Your task to perform on an android device: turn pop-ups off in chrome Image 0: 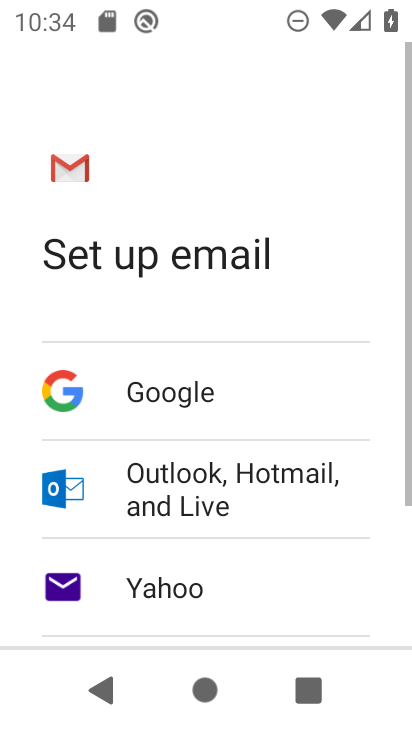
Step 0: press home button
Your task to perform on an android device: turn pop-ups off in chrome Image 1: 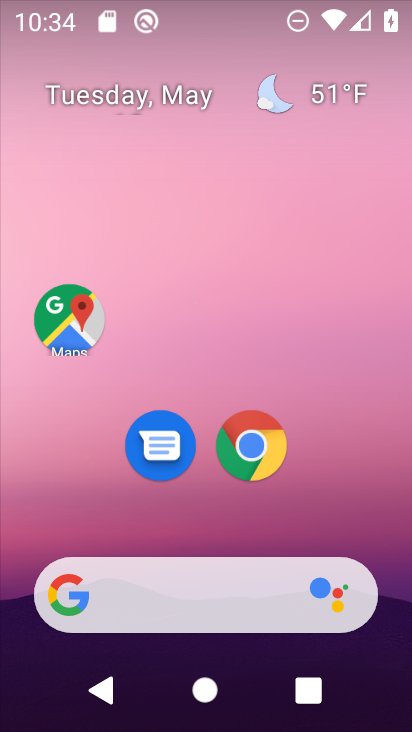
Step 1: drag from (208, 581) to (187, 2)
Your task to perform on an android device: turn pop-ups off in chrome Image 2: 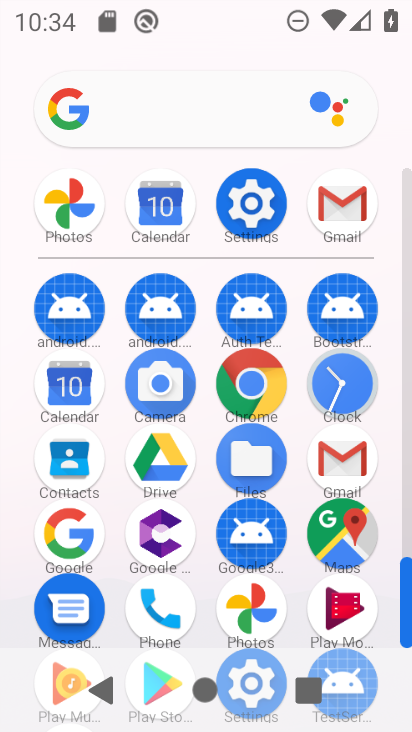
Step 2: click (256, 373)
Your task to perform on an android device: turn pop-ups off in chrome Image 3: 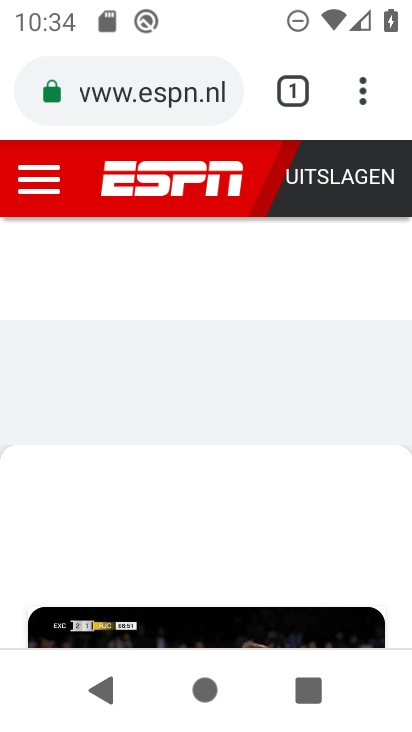
Step 3: drag from (360, 100) to (133, 481)
Your task to perform on an android device: turn pop-ups off in chrome Image 4: 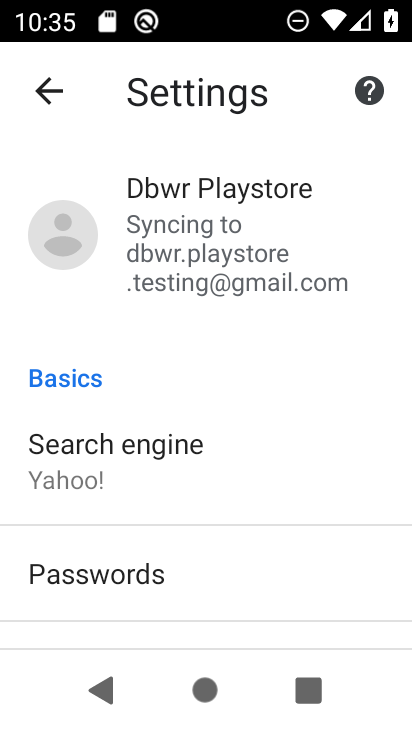
Step 4: drag from (124, 538) to (12, 10)
Your task to perform on an android device: turn pop-ups off in chrome Image 5: 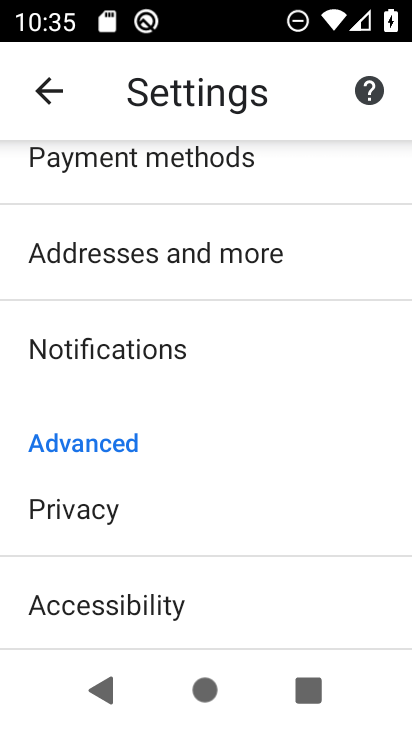
Step 5: drag from (190, 524) to (141, 86)
Your task to perform on an android device: turn pop-ups off in chrome Image 6: 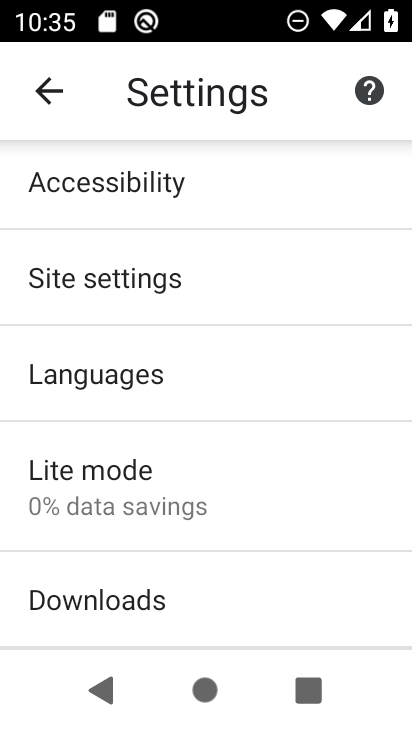
Step 6: click (135, 284)
Your task to perform on an android device: turn pop-ups off in chrome Image 7: 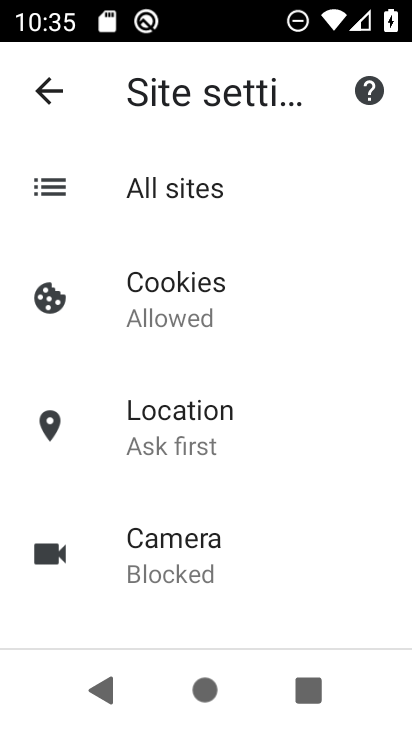
Step 7: drag from (97, 502) to (0, 6)
Your task to perform on an android device: turn pop-ups off in chrome Image 8: 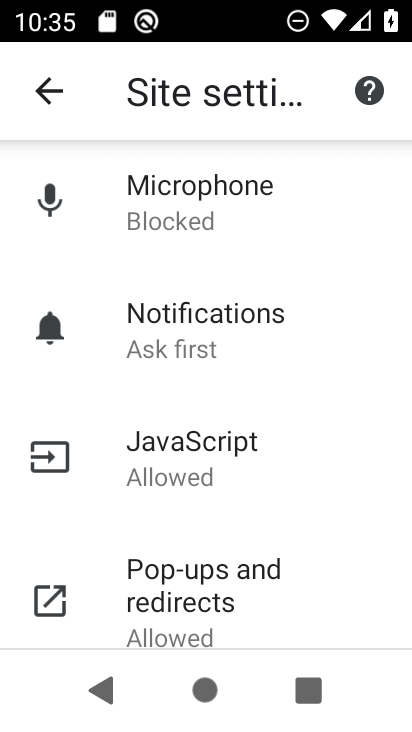
Step 8: click (176, 594)
Your task to perform on an android device: turn pop-ups off in chrome Image 9: 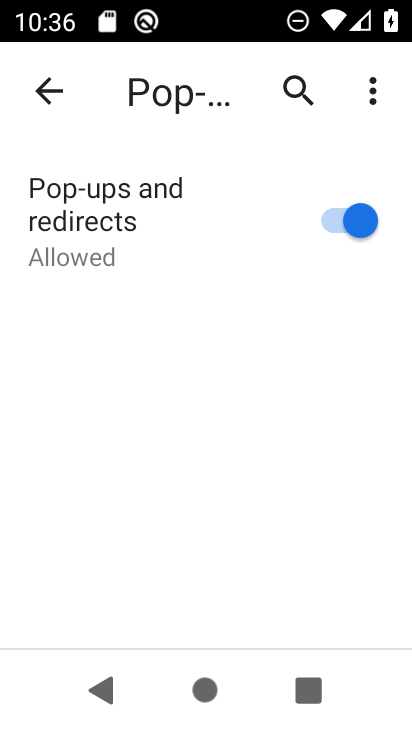
Step 9: click (332, 213)
Your task to perform on an android device: turn pop-ups off in chrome Image 10: 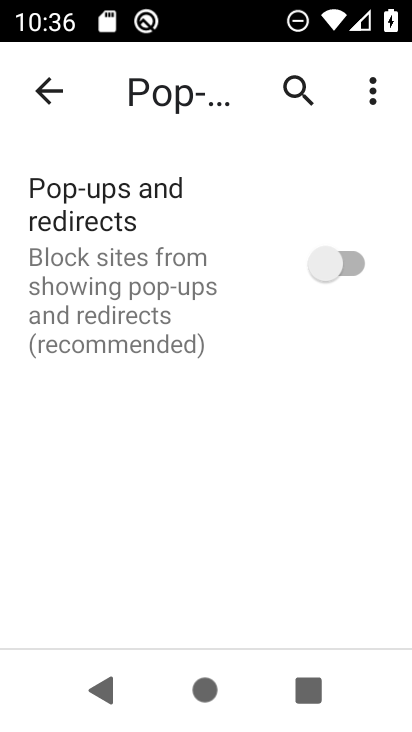
Step 10: task complete